Your task to perform on an android device: Show me recent news Image 0: 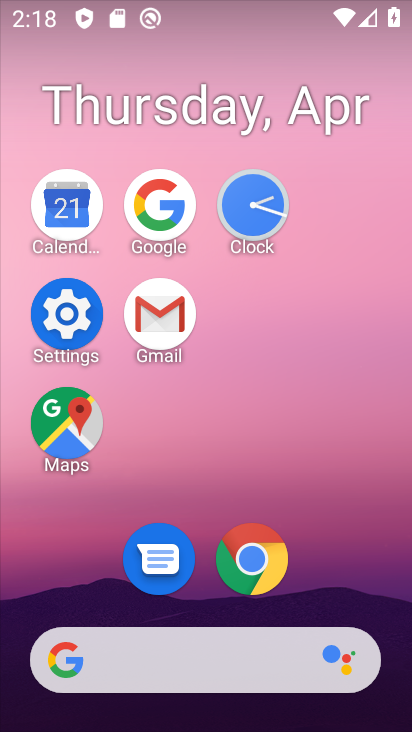
Step 0: click (169, 204)
Your task to perform on an android device: Show me recent news Image 1: 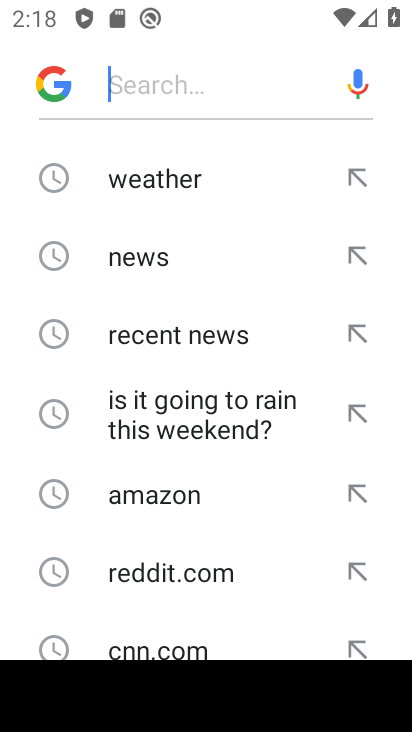
Step 1: click (171, 337)
Your task to perform on an android device: Show me recent news Image 2: 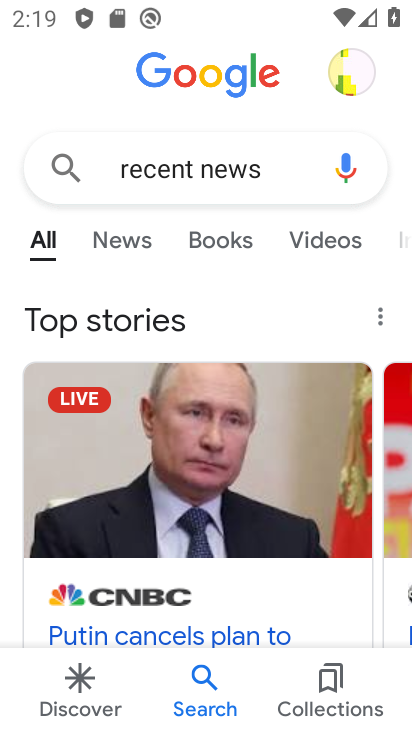
Step 2: task complete